Your task to perform on an android device: delete browsing data in the chrome app Image 0: 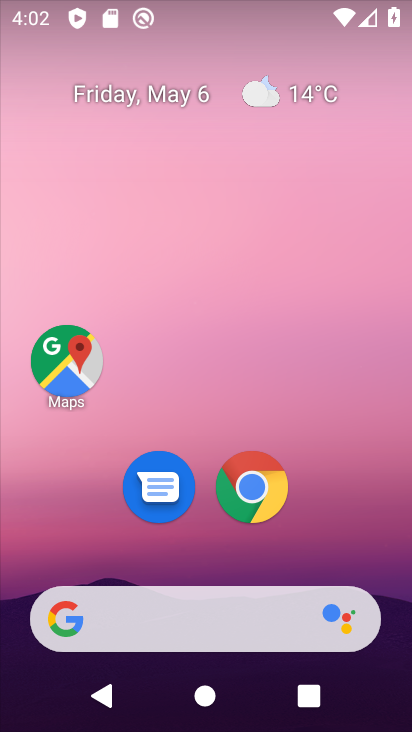
Step 0: click (265, 513)
Your task to perform on an android device: delete browsing data in the chrome app Image 1: 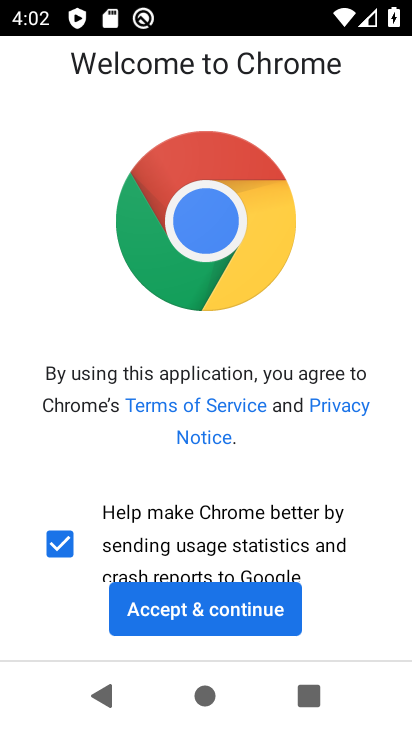
Step 1: click (243, 616)
Your task to perform on an android device: delete browsing data in the chrome app Image 2: 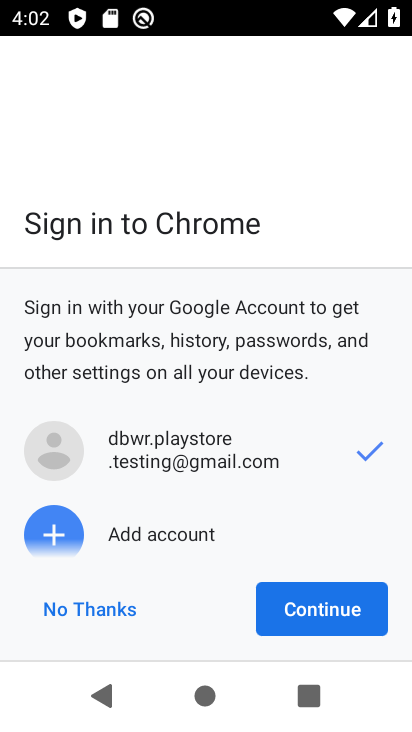
Step 2: click (287, 616)
Your task to perform on an android device: delete browsing data in the chrome app Image 3: 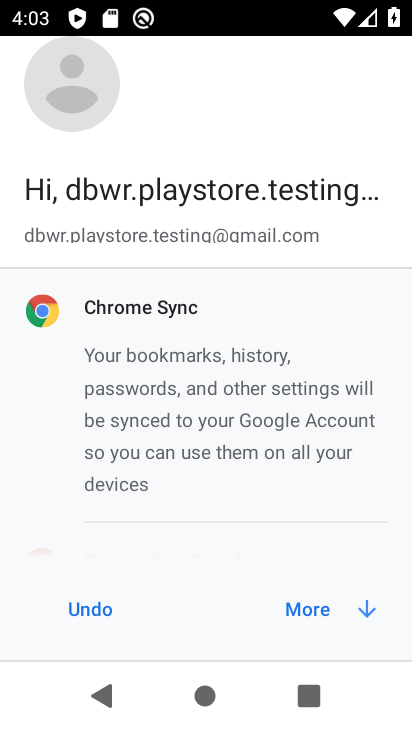
Step 3: click (331, 614)
Your task to perform on an android device: delete browsing data in the chrome app Image 4: 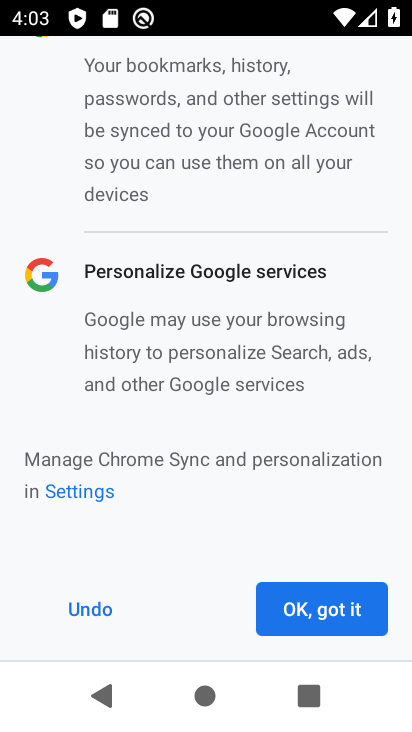
Step 4: click (342, 601)
Your task to perform on an android device: delete browsing data in the chrome app Image 5: 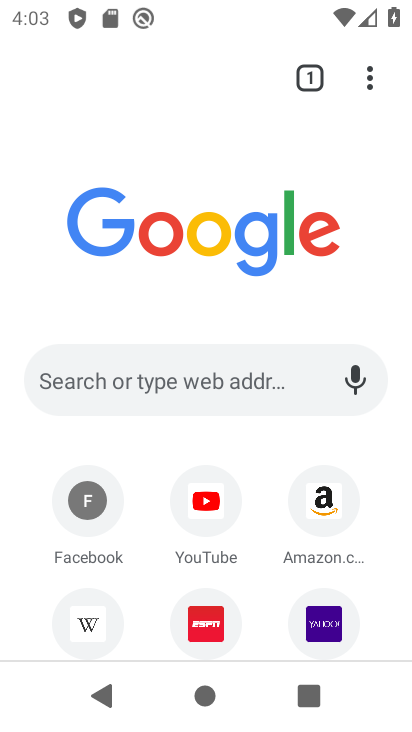
Step 5: click (368, 79)
Your task to perform on an android device: delete browsing data in the chrome app Image 6: 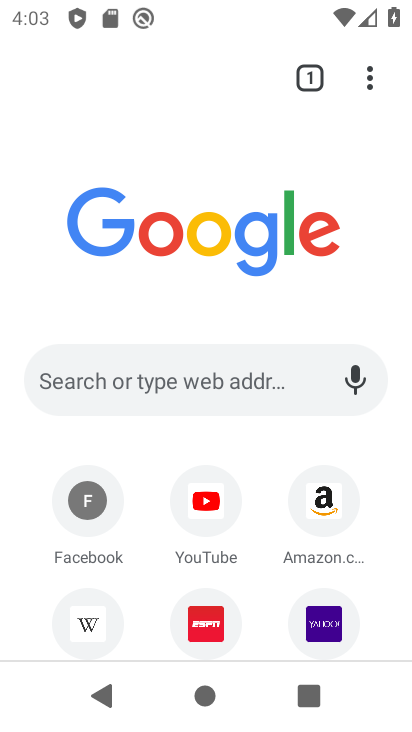
Step 6: task complete